Your task to perform on an android device: Open Maps and search for coffee Image 0: 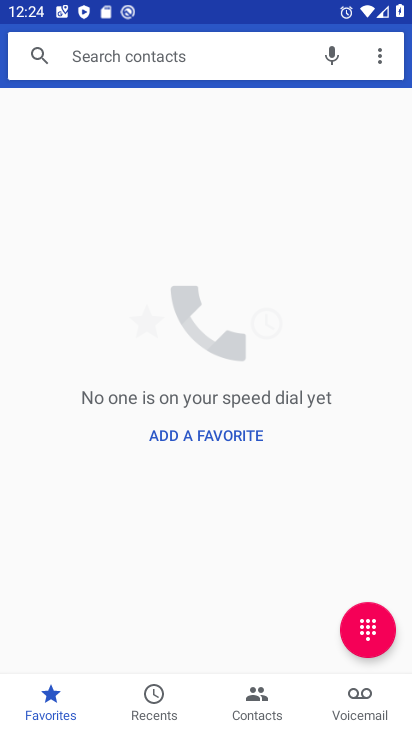
Step 0: click (163, 54)
Your task to perform on an android device: Open Maps and search for coffee Image 1: 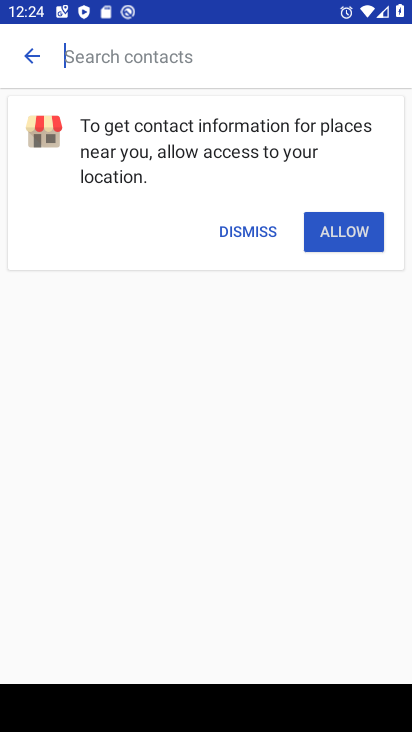
Step 1: press home button
Your task to perform on an android device: Open Maps and search for coffee Image 2: 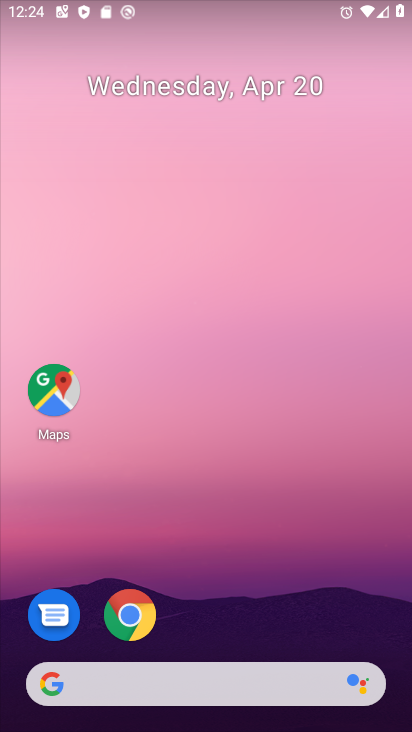
Step 2: drag from (348, 632) to (324, 180)
Your task to perform on an android device: Open Maps and search for coffee Image 3: 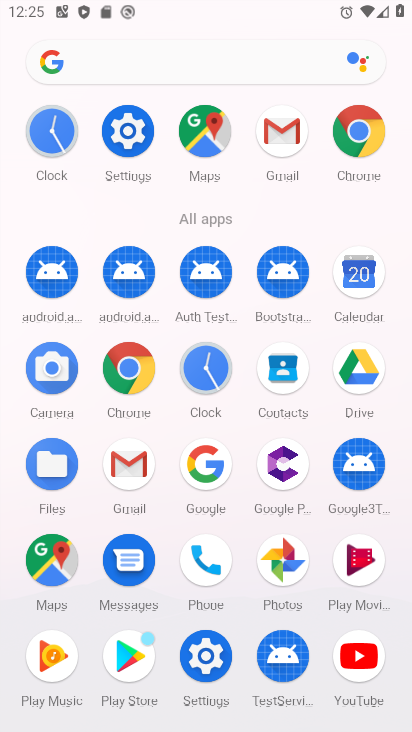
Step 3: click (214, 128)
Your task to perform on an android device: Open Maps and search for coffee Image 4: 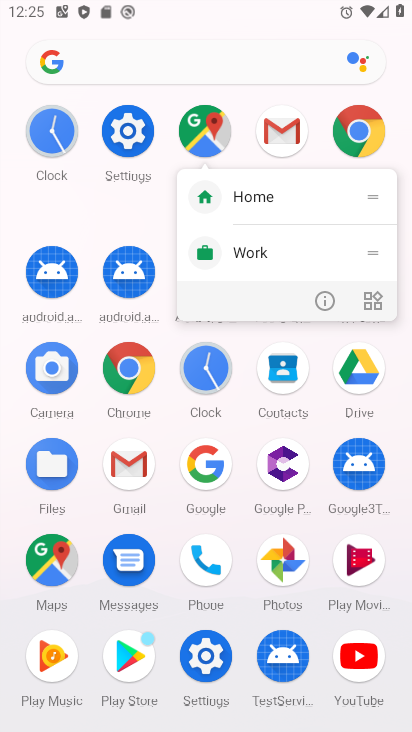
Step 4: click (191, 133)
Your task to perform on an android device: Open Maps and search for coffee Image 5: 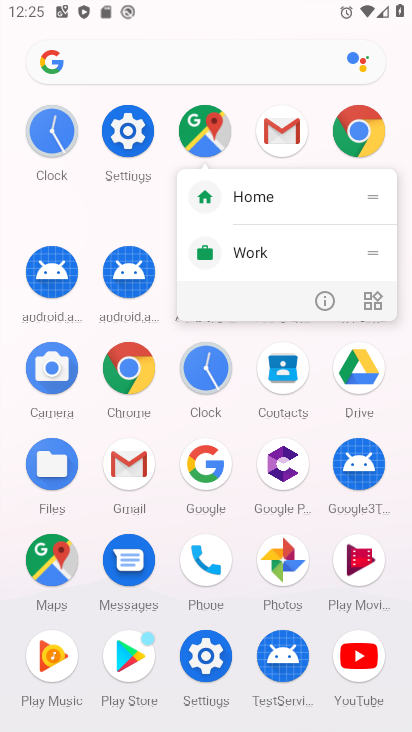
Step 5: click (194, 135)
Your task to perform on an android device: Open Maps and search for coffee Image 6: 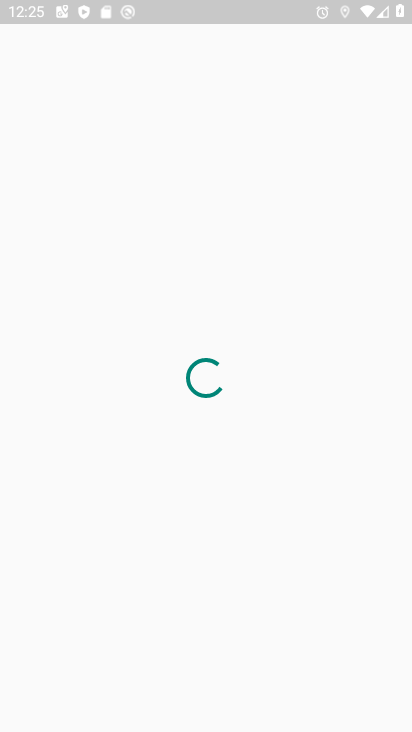
Step 6: task complete